Your task to perform on an android device: What's the price of the new iPhone on eBay? Image 0: 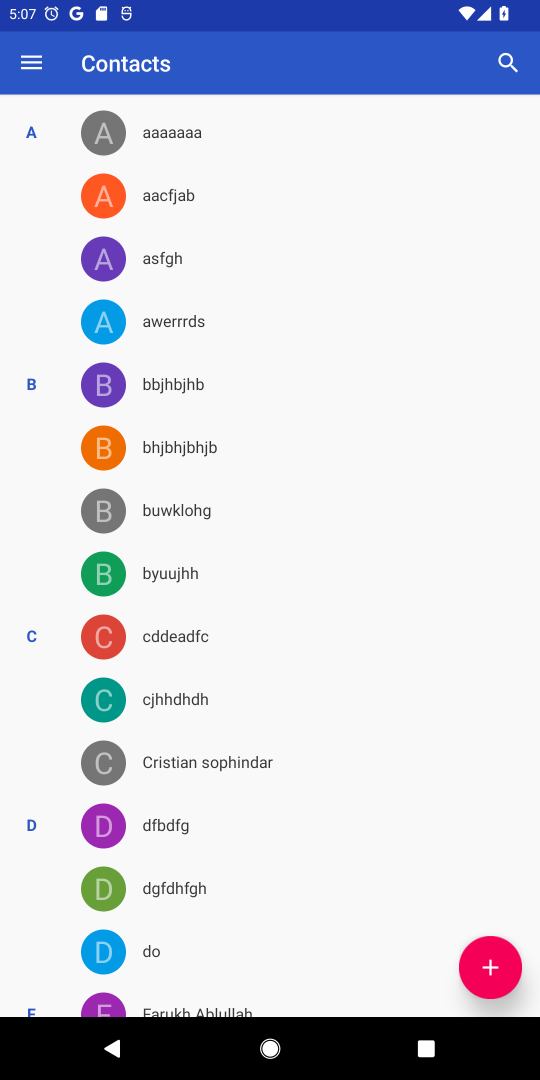
Step 0: press home button
Your task to perform on an android device: What's the price of the new iPhone on eBay? Image 1: 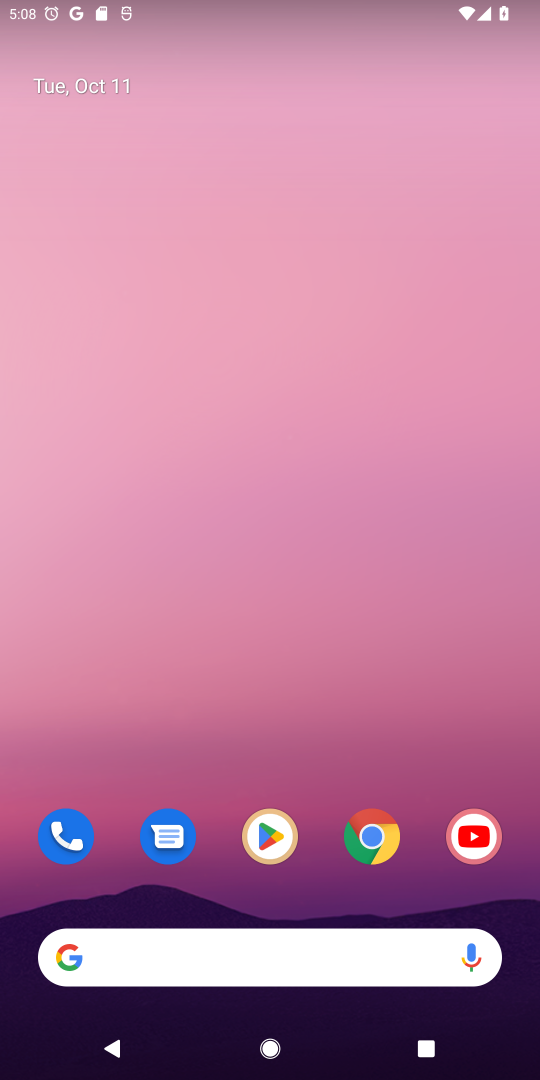
Step 1: click (198, 947)
Your task to perform on an android device: What's the price of the new iPhone on eBay? Image 2: 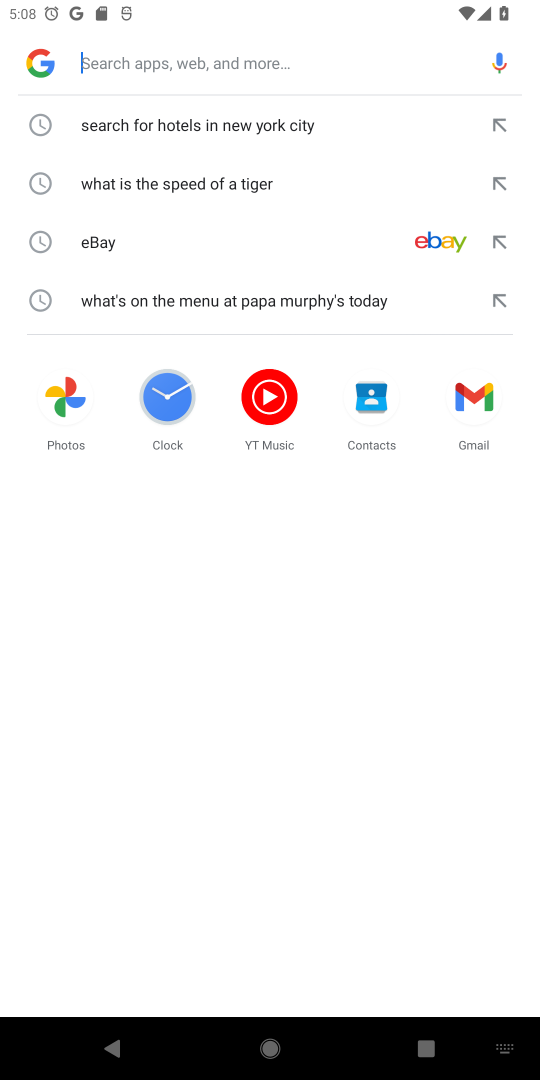
Step 2: type "What's the price of the new iPhone on eBay?"
Your task to perform on an android device: What's the price of the new iPhone on eBay? Image 3: 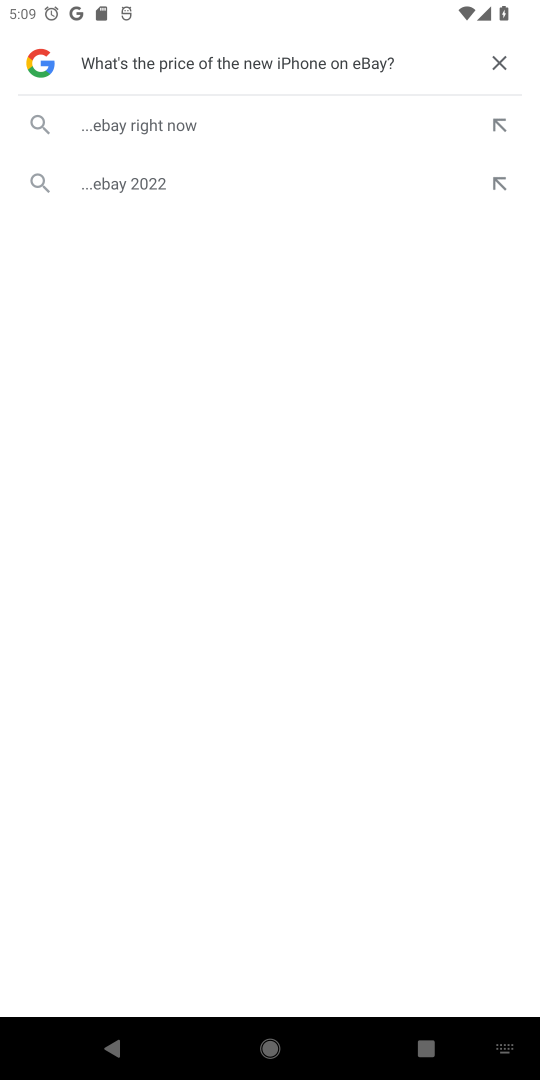
Step 3: click (330, 135)
Your task to perform on an android device: What's the price of the new iPhone on eBay? Image 4: 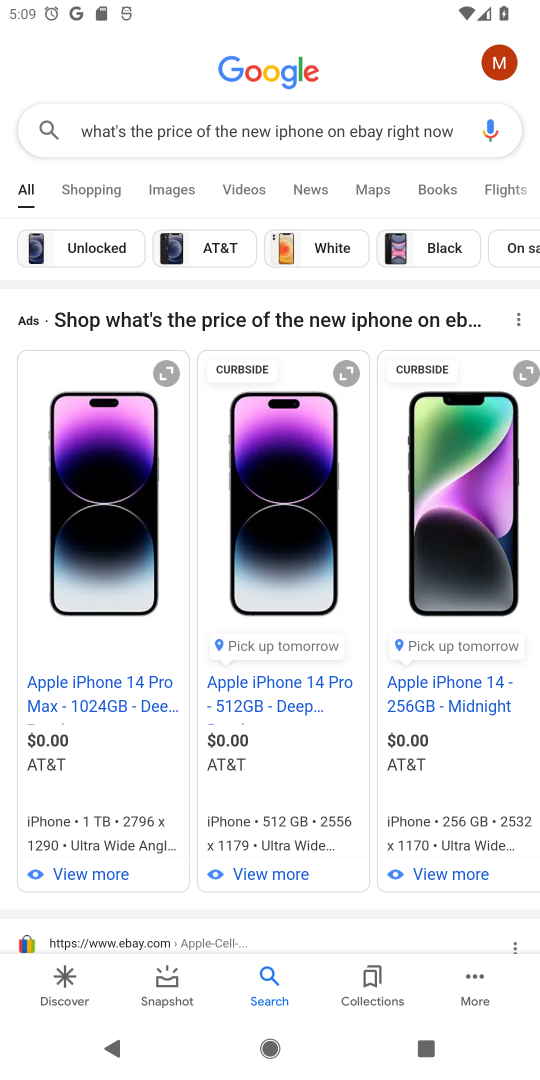
Step 4: task complete